Your task to perform on an android device: Check the weather Image 0: 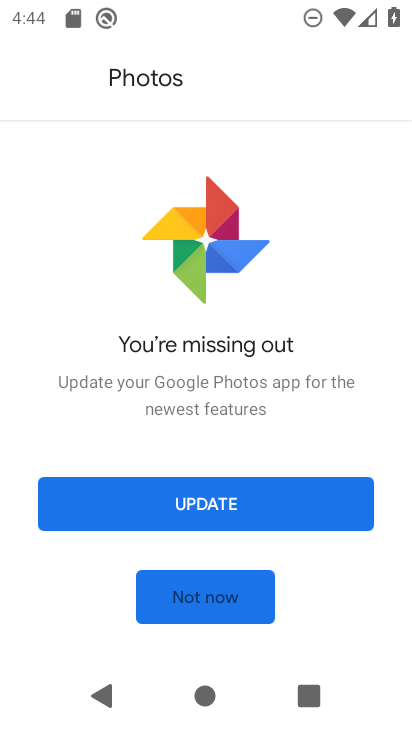
Step 0: press back button
Your task to perform on an android device: Check the weather Image 1: 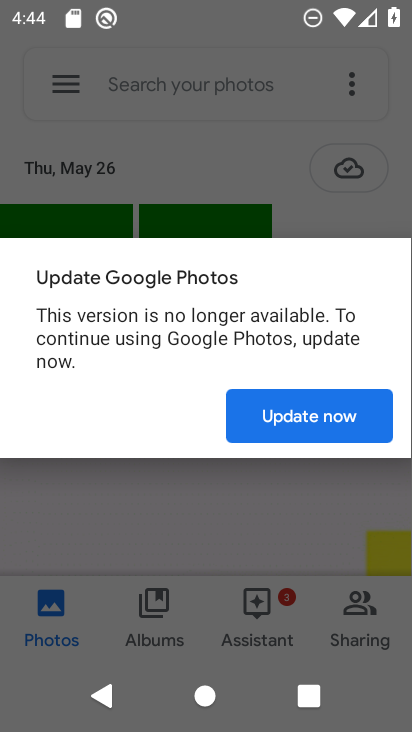
Step 1: press home button
Your task to perform on an android device: Check the weather Image 2: 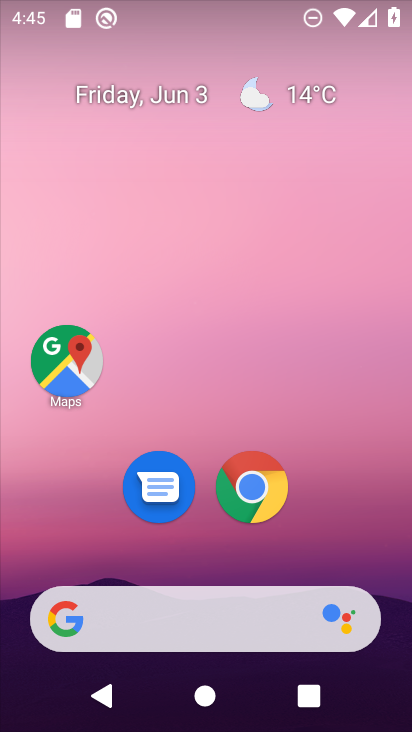
Step 2: click (132, 620)
Your task to perform on an android device: Check the weather Image 3: 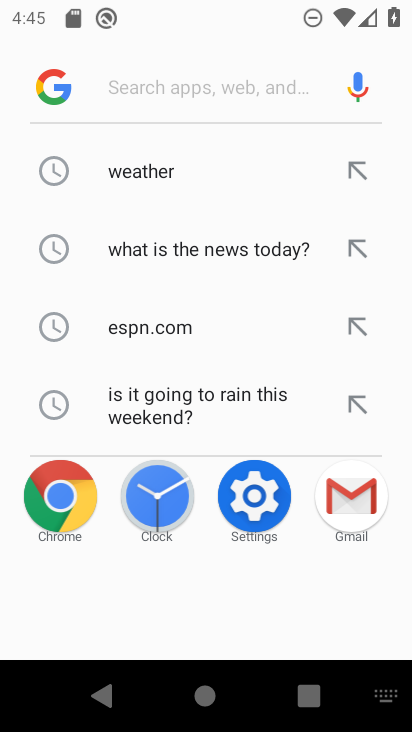
Step 3: click (145, 176)
Your task to perform on an android device: Check the weather Image 4: 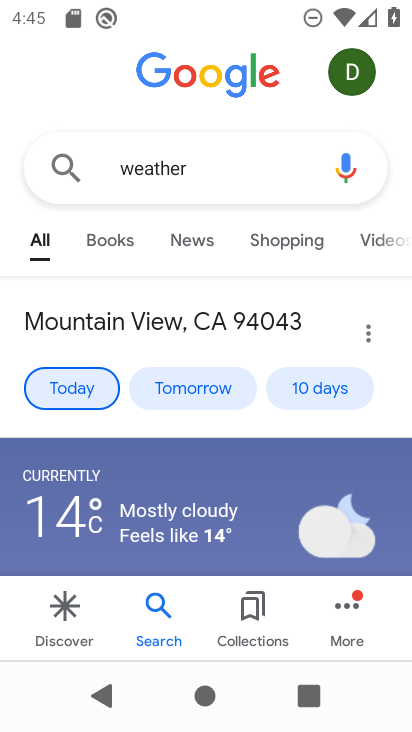
Step 4: task complete